Your task to perform on an android device: Go to sound settings Image 0: 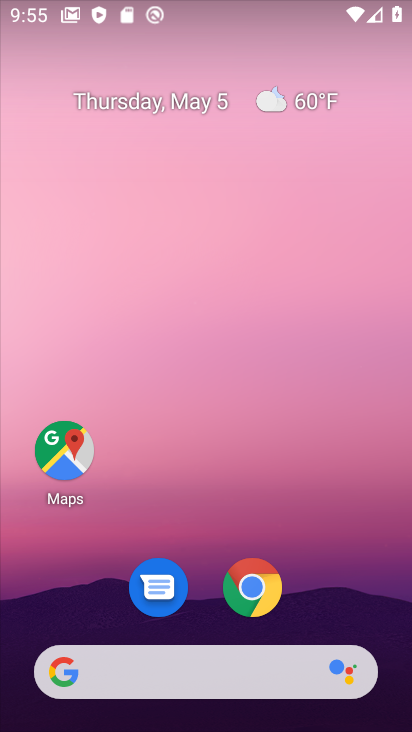
Step 0: drag from (72, 648) to (205, 167)
Your task to perform on an android device: Go to sound settings Image 1: 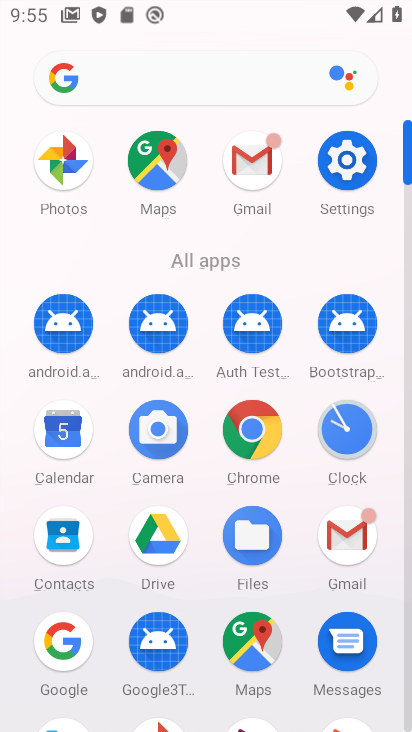
Step 1: click (344, 168)
Your task to perform on an android device: Go to sound settings Image 2: 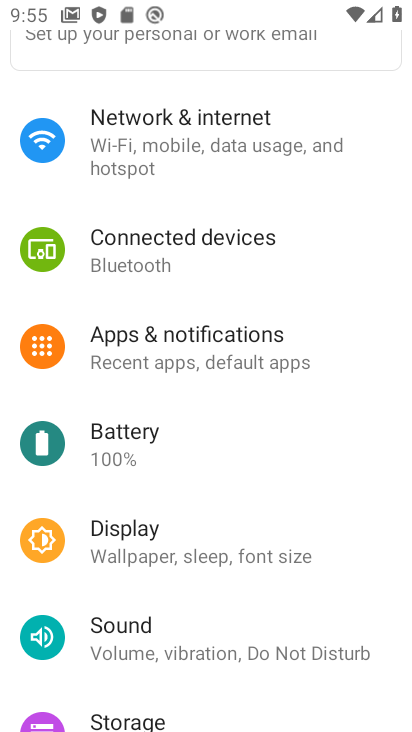
Step 2: click (136, 644)
Your task to perform on an android device: Go to sound settings Image 3: 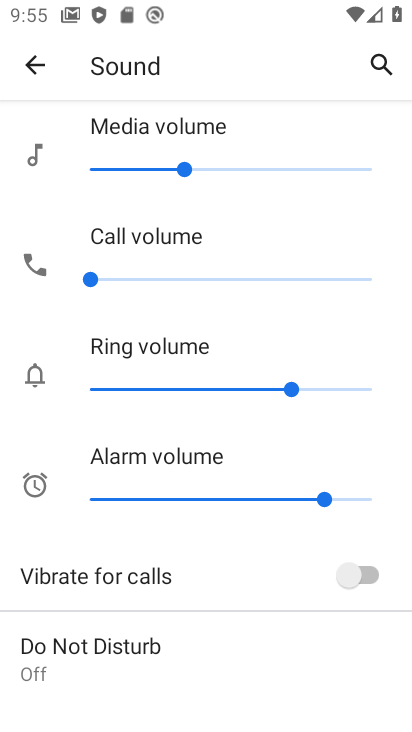
Step 3: task complete